Your task to perform on an android device: turn pop-ups off in chrome Image 0: 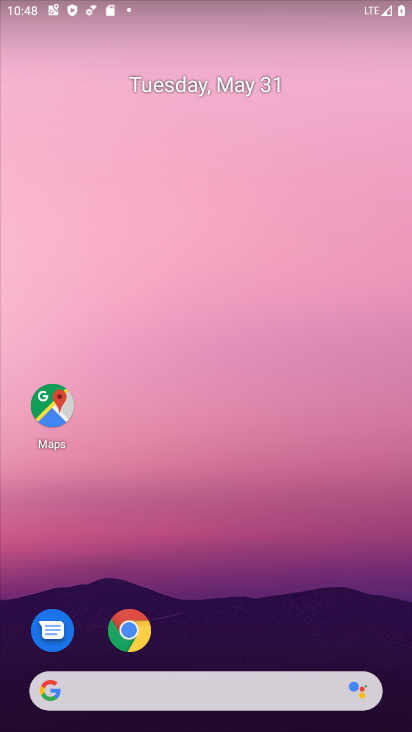
Step 0: click (138, 624)
Your task to perform on an android device: turn pop-ups off in chrome Image 1: 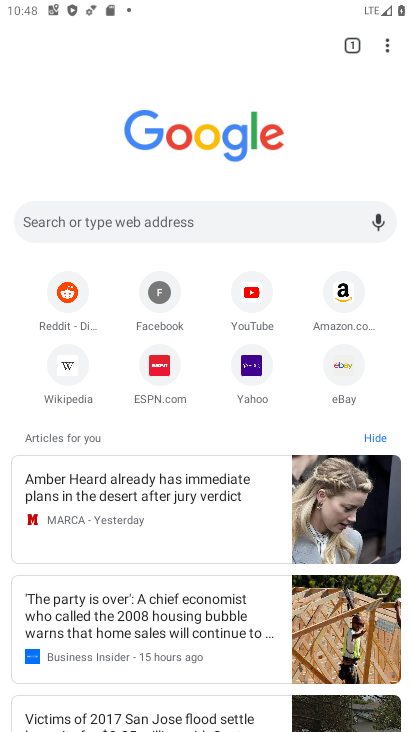
Step 1: click (389, 47)
Your task to perform on an android device: turn pop-ups off in chrome Image 2: 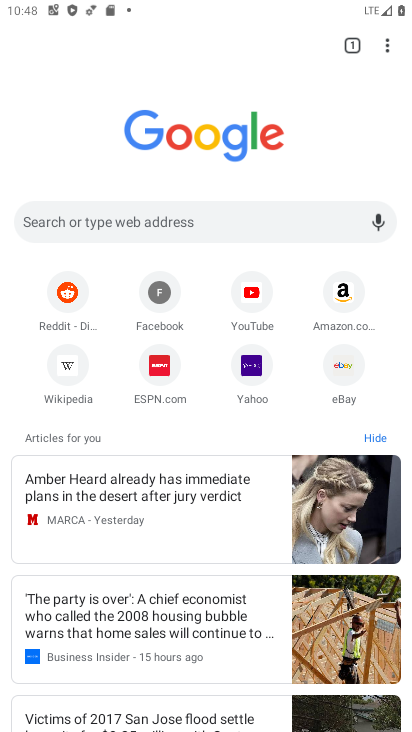
Step 2: drag from (388, 51) to (237, 380)
Your task to perform on an android device: turn pop-ups off in chrome Image 3: 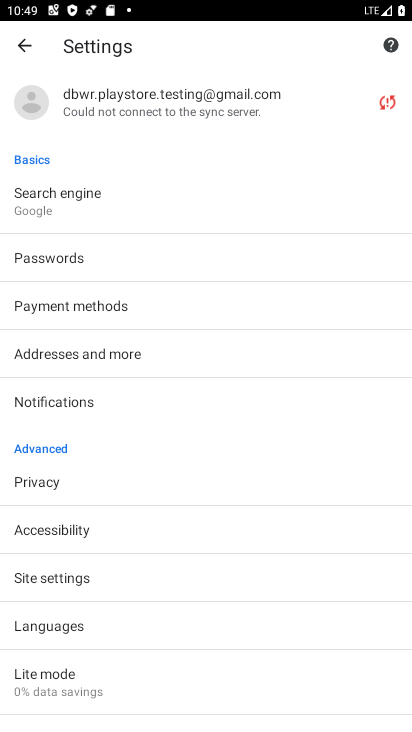
Step 3: click (90, 581)
Your task to perform on an android device: turn pop-ups off in chrome Image 4: 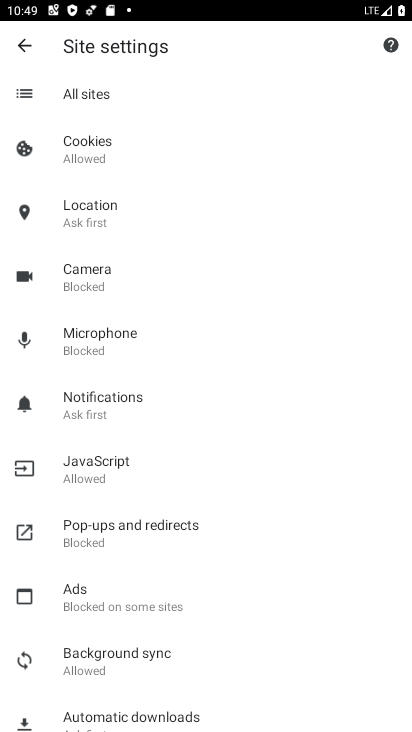
Step 4: click (98, 532)
Your task to perform on an android device: turn pop-ups off in chrome Image 5: 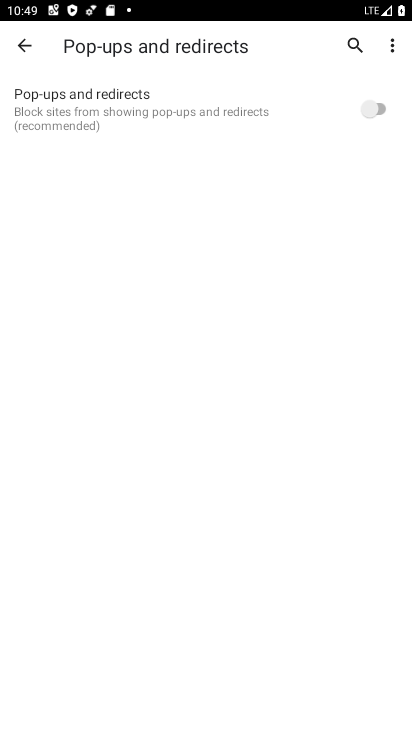
Step 5: task complete